Your task to perform on an android device: Open my contact list Image 0: 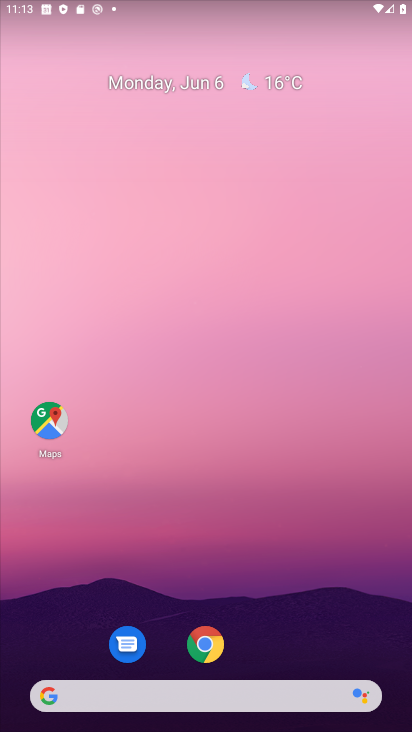
Step 0: drag from (295, 625) to (209, 44)
Your task to perform on an android device: Open my contact list Image 1: 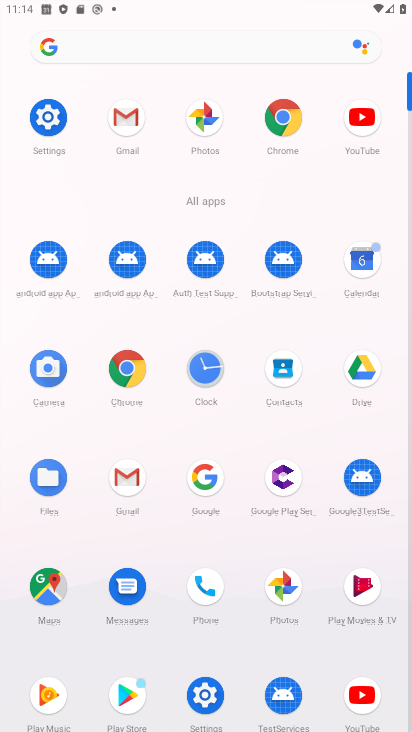
Step 1: click (286, 372)
Your task to perform on an android device: Open my contact list Image 2: 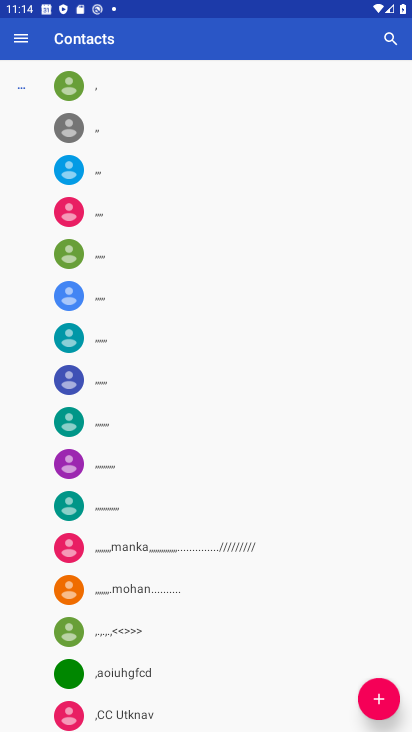
Step 2: task complete